Your task to perform on an android device: refresh tabs in the chrome app Image 0: 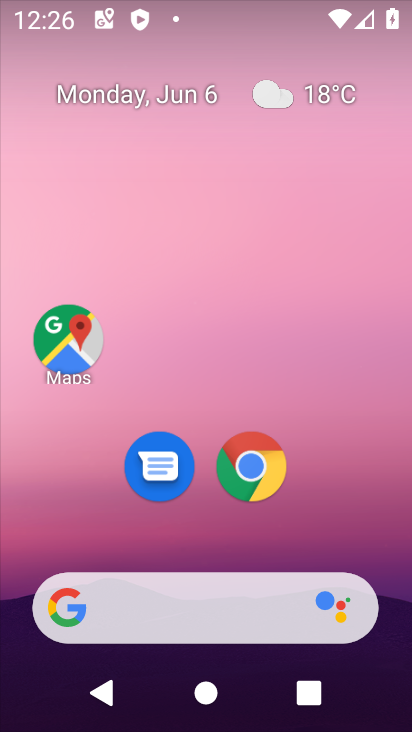
Step 0: drag from (313, 457) to (221, 17)
Your task to perform on an android device: refresh tabs in the chrome app Image 1: 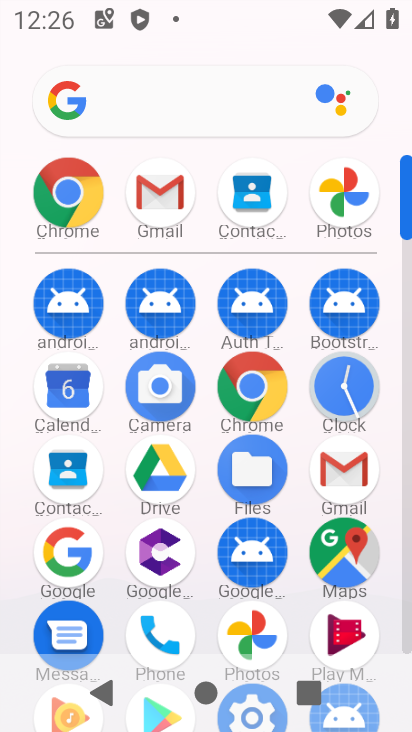
Step 1: click (26, 216)
Your task to perform on an android device: refresh tabs in the chrome app Image 2: 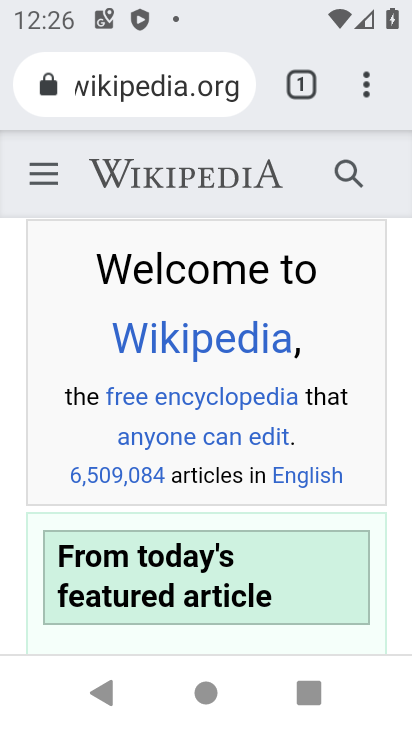
Step 2: click (363, 84)
Your task to perform on an android device: refresh tabs in the chrome app Image 3: 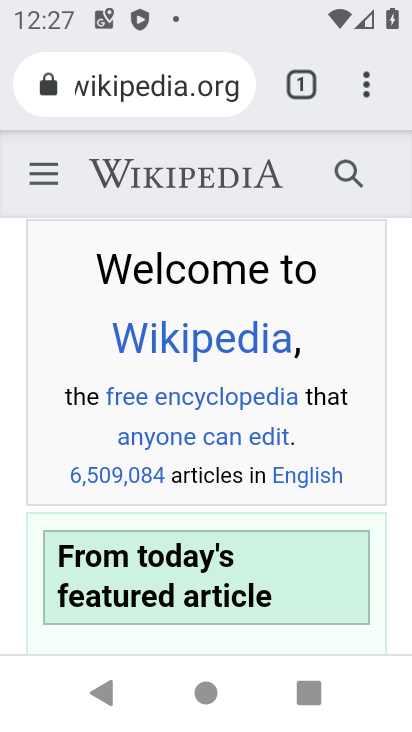
Step 3: task complete